Your task to perform on an android device: Show me the best rated power washer on Home Depot. Image 0: 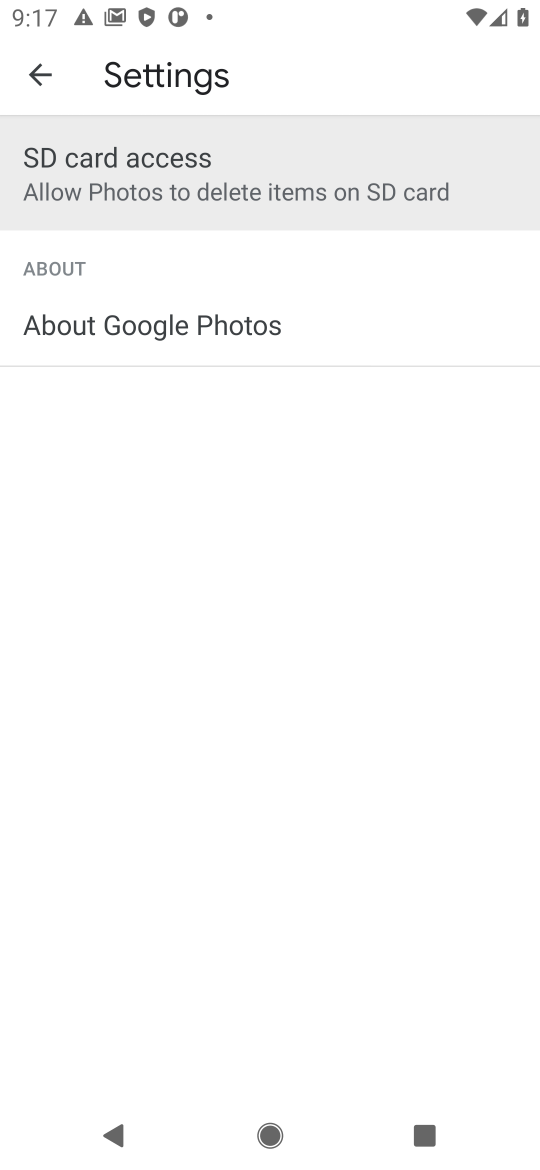
Step 0: press home button
Your task to perform on an android device: Show me the best rated power washer on Home Depot. Image 1: 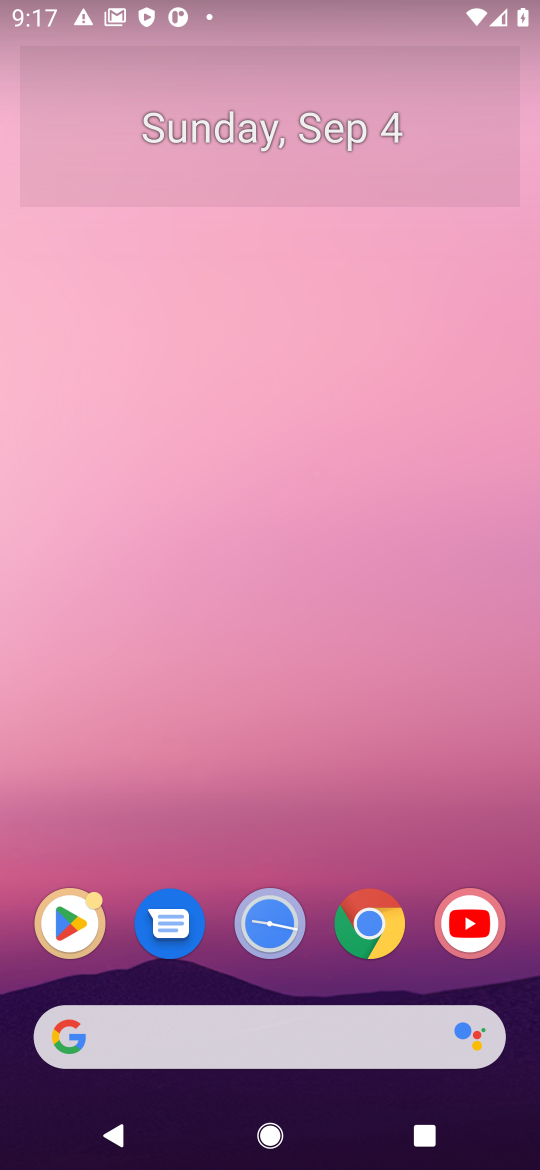
Step 1: click (410, 1033)
Your task to perform on an android device: Show me the best rated power washer on Home Depot. Image 2: 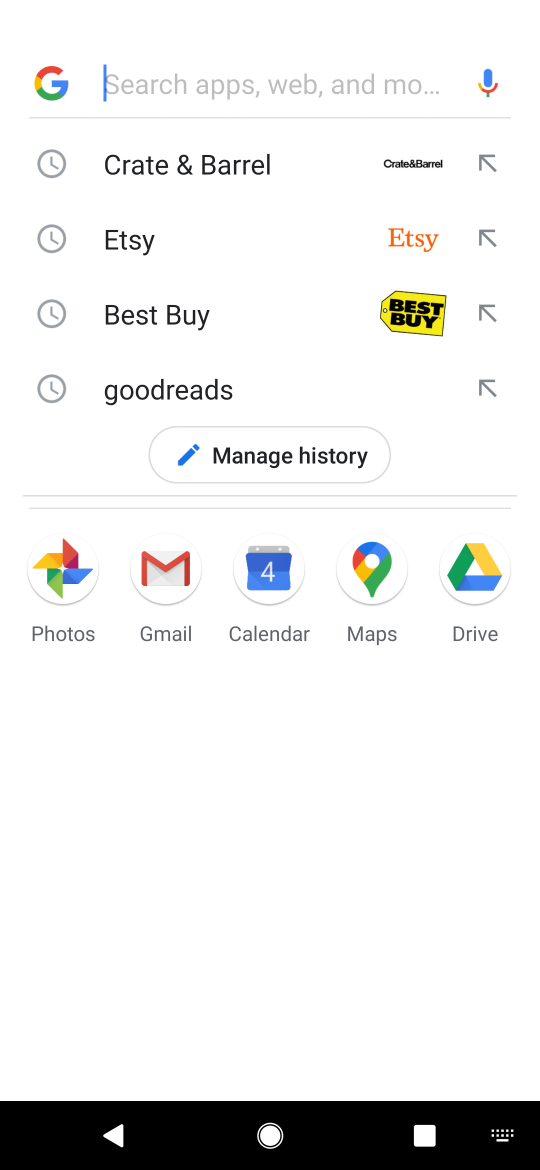
Step 2: press enter
Your task to perform on an android device: Show me the best rated power washer on Home Depot. Image 3: 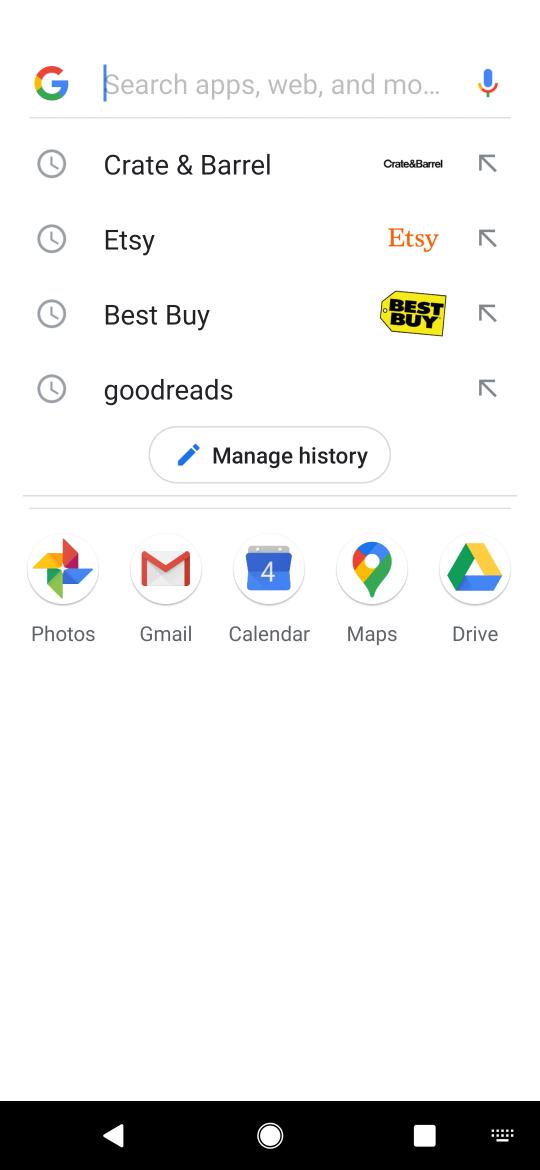
Step 3: type "home depot"
Your task to perform on an android device: Show me the best rated power washer on Home Depot. Image 4: 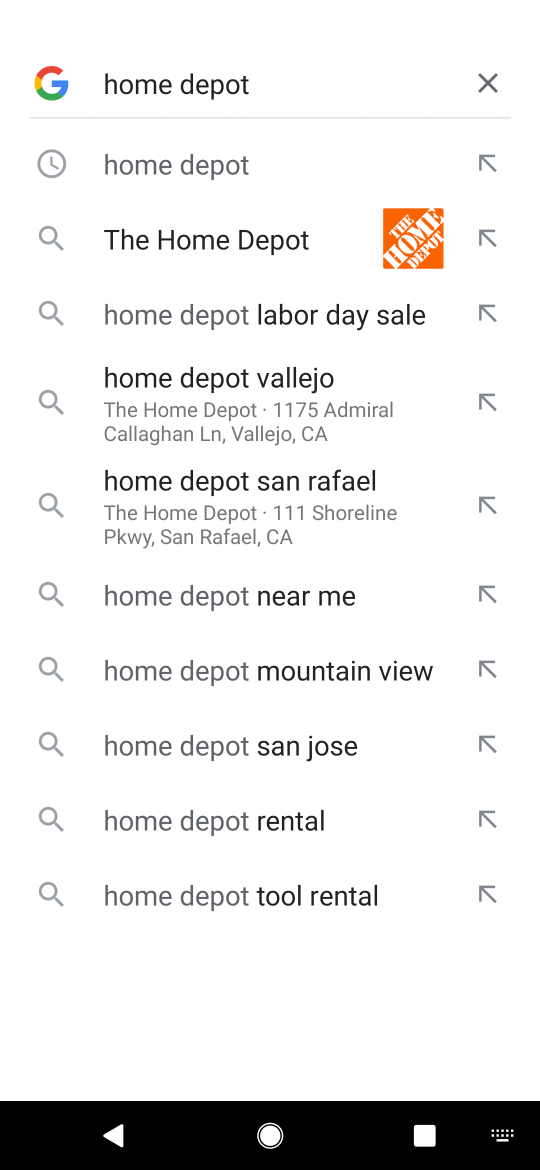
Step 4: click (226, 162)
Your task to perform on an android device: Show me the best rated power washer on Home Depot. Image 5: 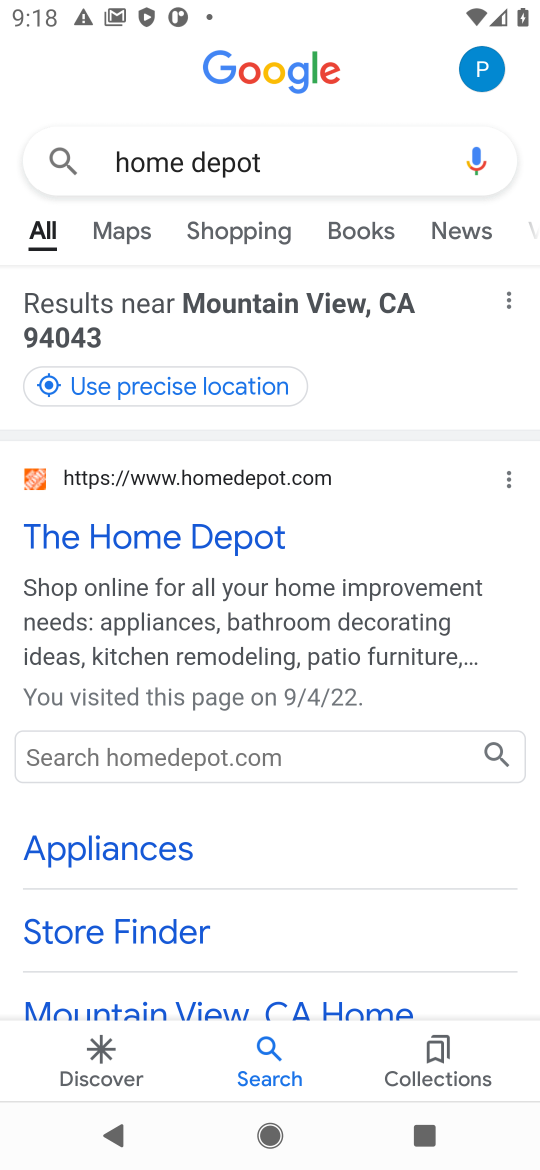
Step 5: click (231, 546)
Your task to perform on an android device: Show me the best rated power washer on Home Depot. Image 6: 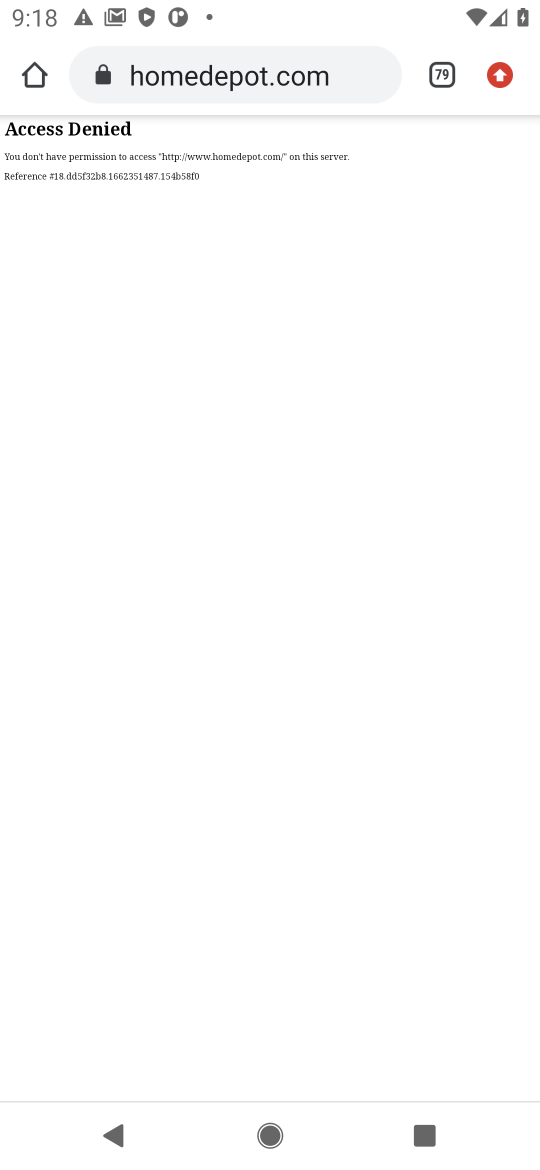
Step 6: task complete